Your task to perform on an android device: change notifications settings Image 0: 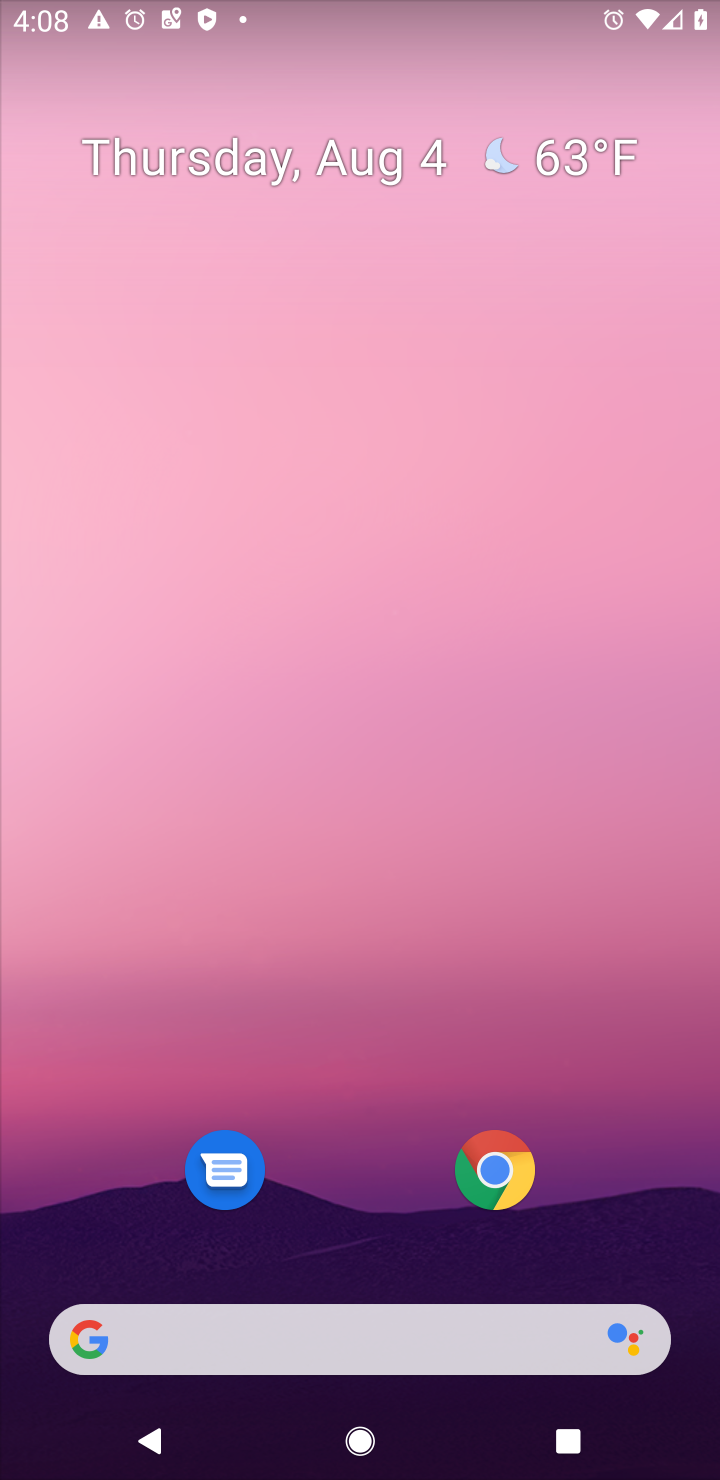
Step 0: drag from (640, 1255) to (622, 368)
Your task to perform on an android device: change notifications settings Image 1: 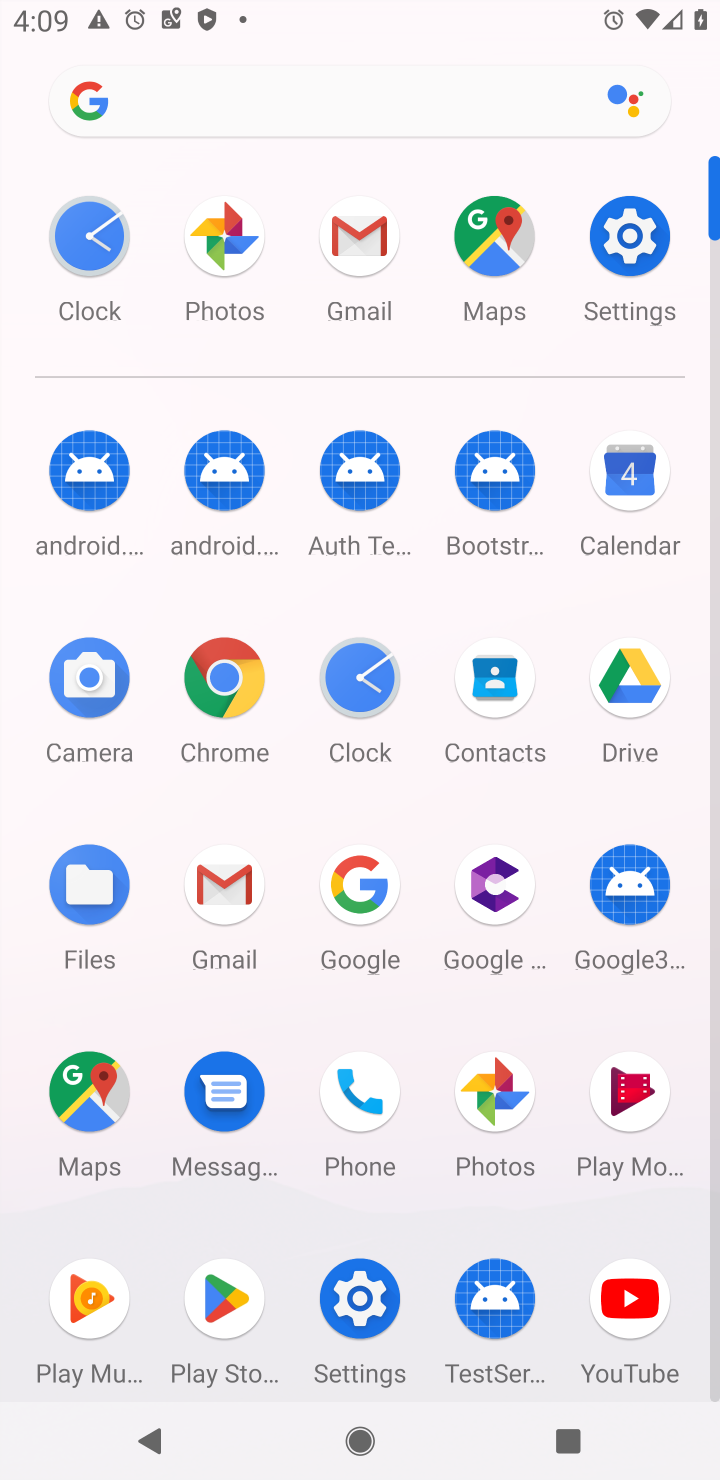
Step 1: click (355, 1294)
Your task to perform on an android device: change notifications settings Image 2: 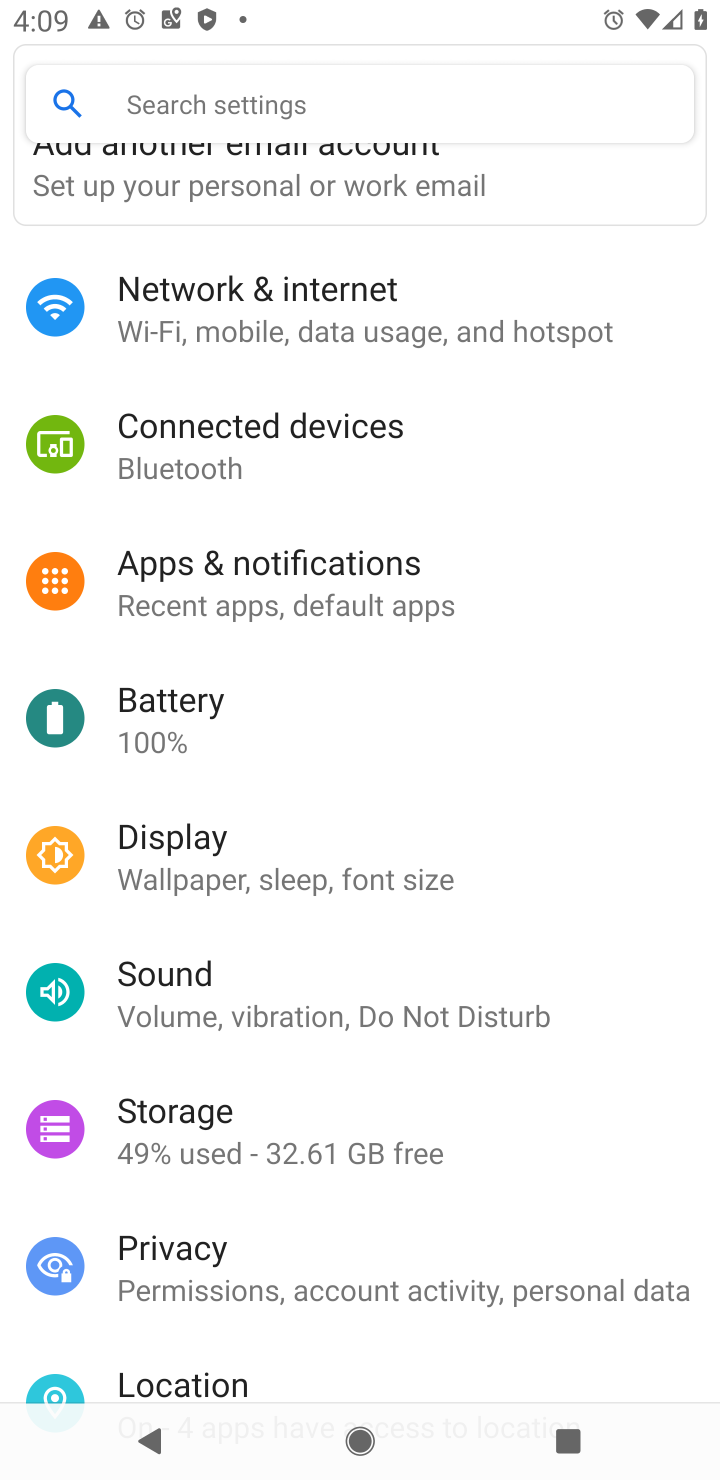
Step 2: click (234, 565)
Your task to perform on an android device: change notifications settings Image 3: 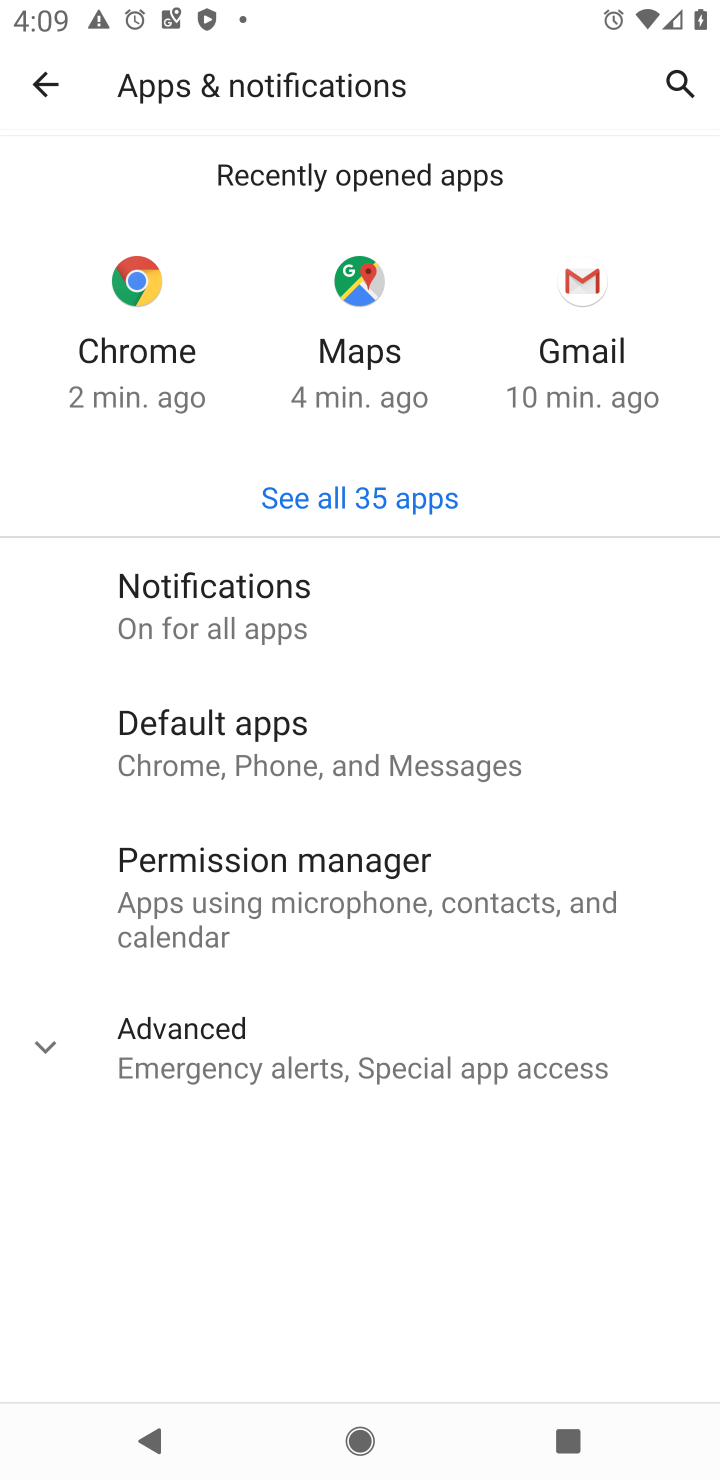
Step 3: click (177, 604)
Your task to perform on an android device: change notifications settings Image 4: 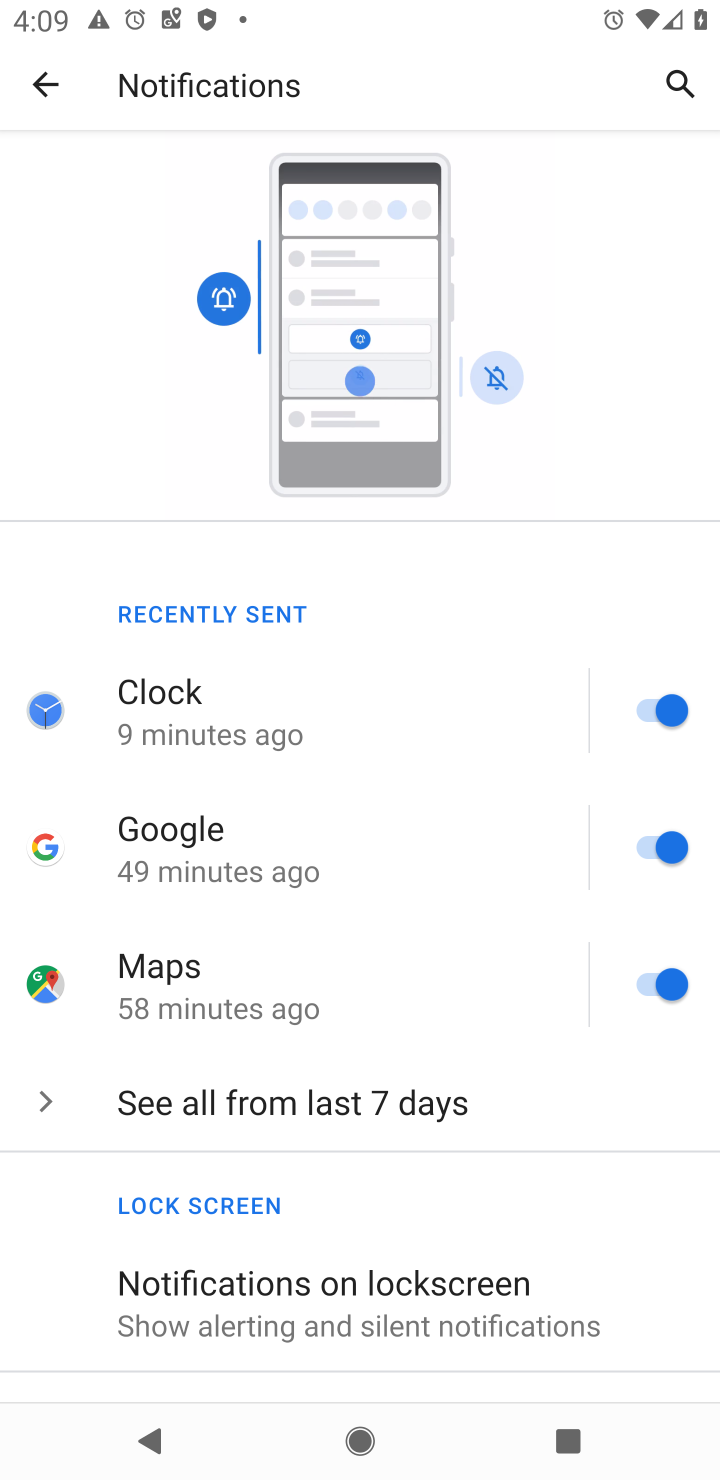
Step 4: drag from (437, 1235) to (487, 575)
Your task to perform on an android device: change notifications settings Image 5: 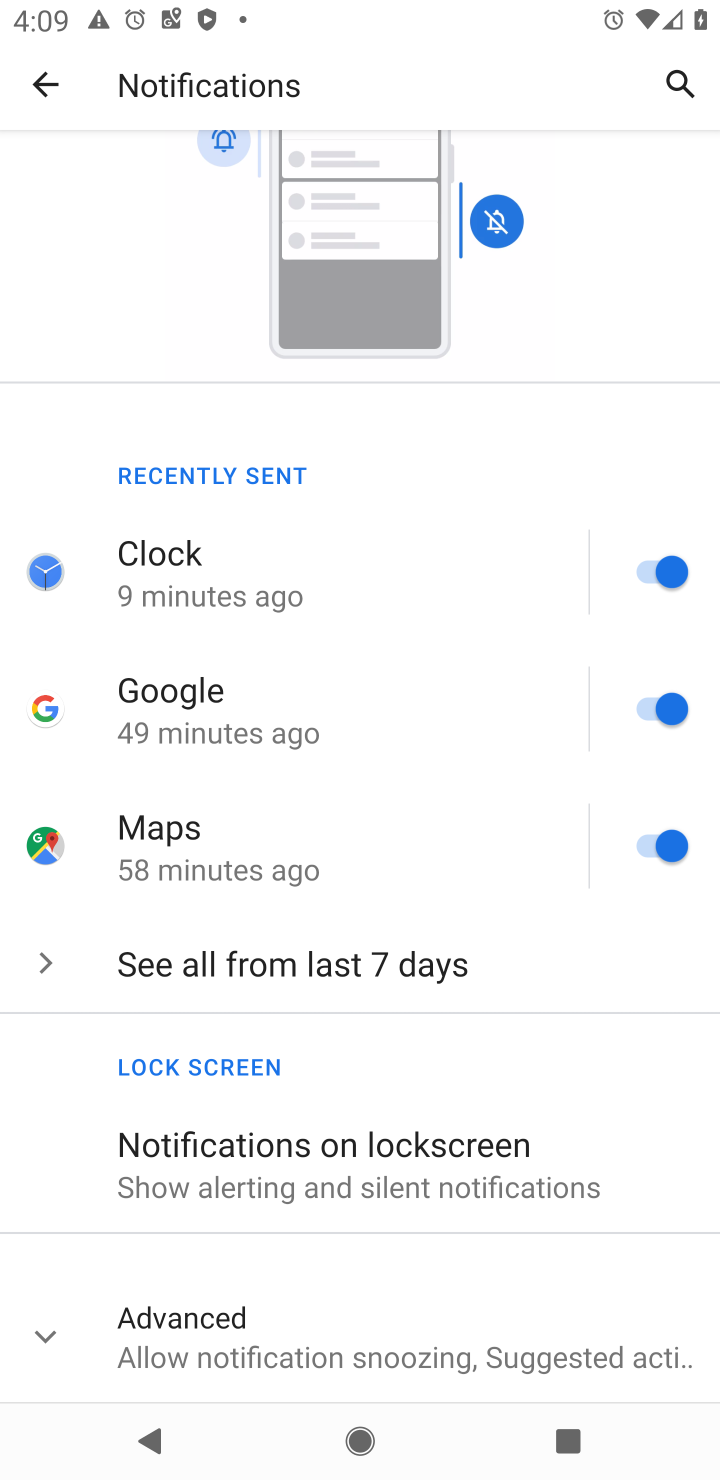
Step 5: click (52, 1342)
Your task to perform on an android device: change notifications settings Image 6: 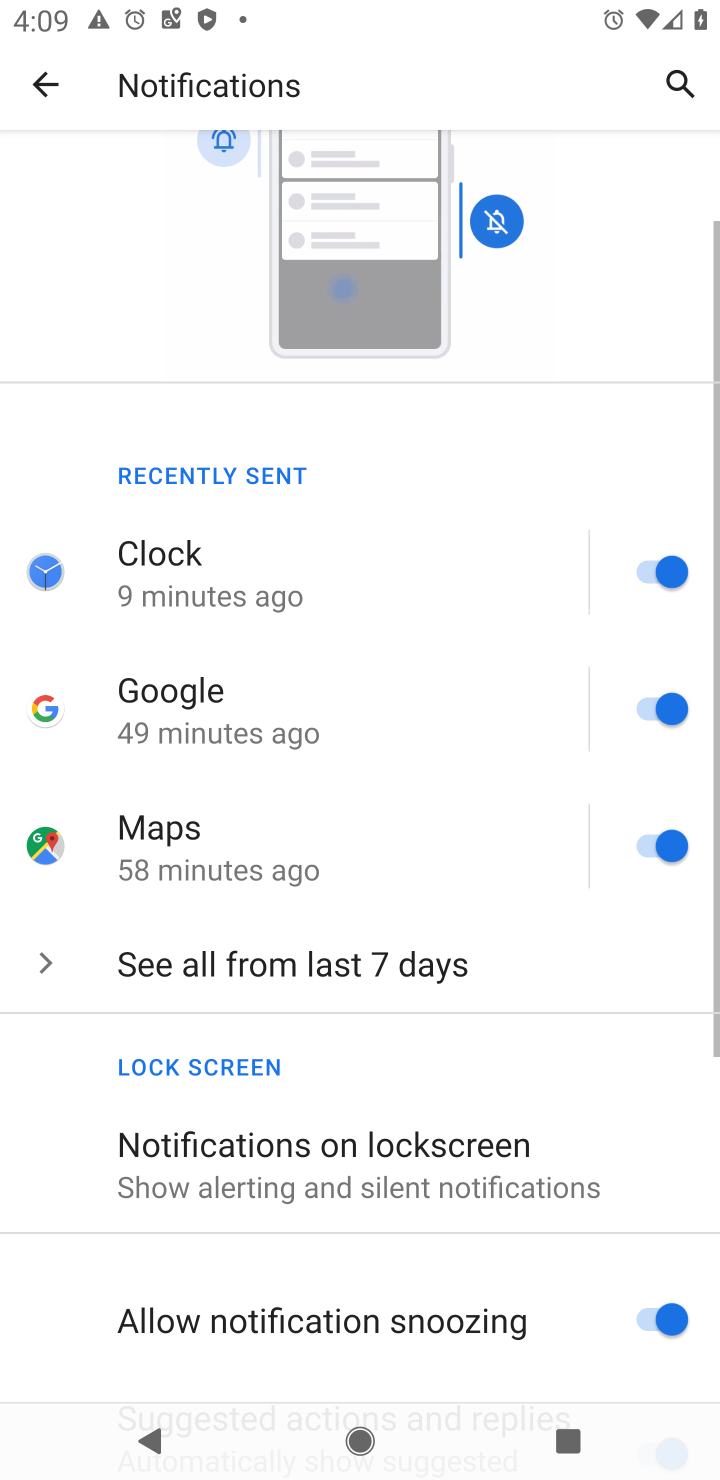
Step 6: drag from (553, 1274) to (567, 499)
Your task to perform on an android device: change notifications settings Image 7: 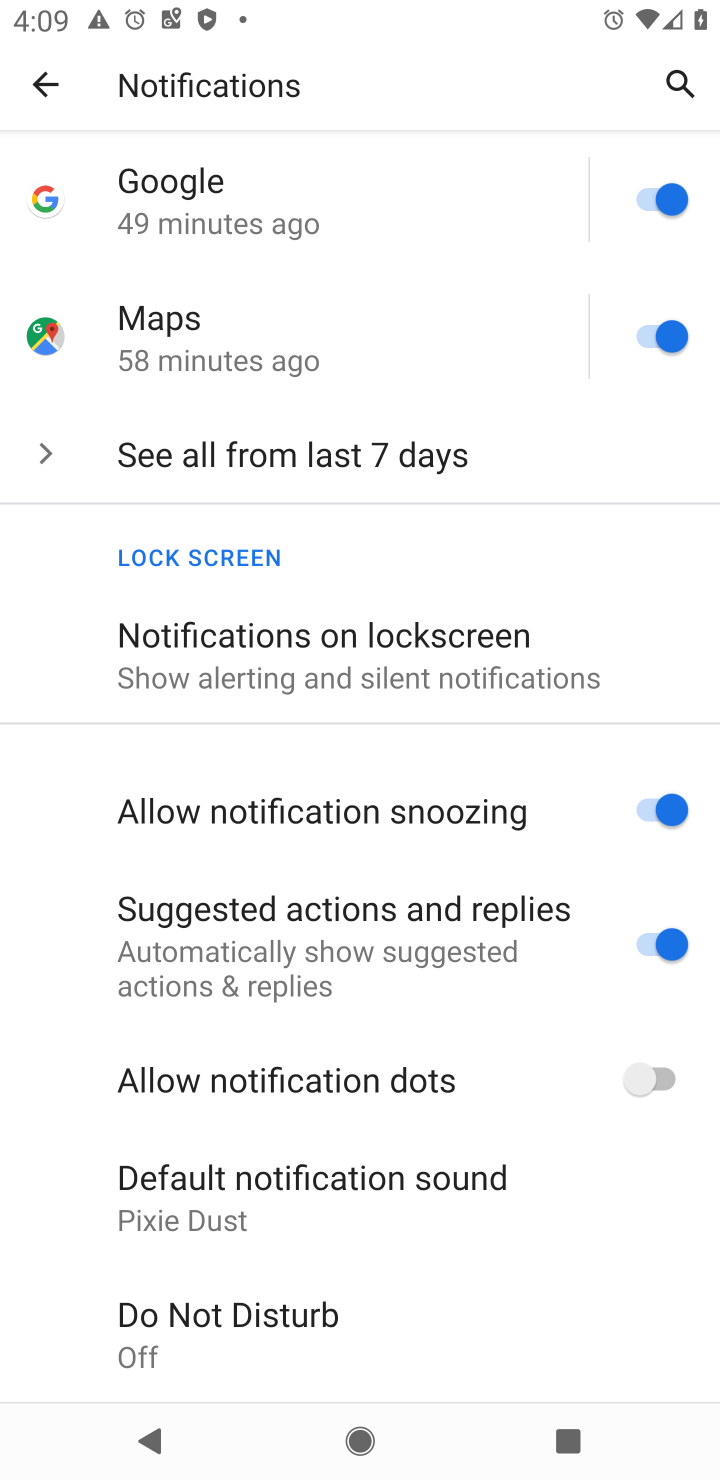
Step 7: click (670, 1085)
Your task to perform on an android device: change notifications settings Image 8: 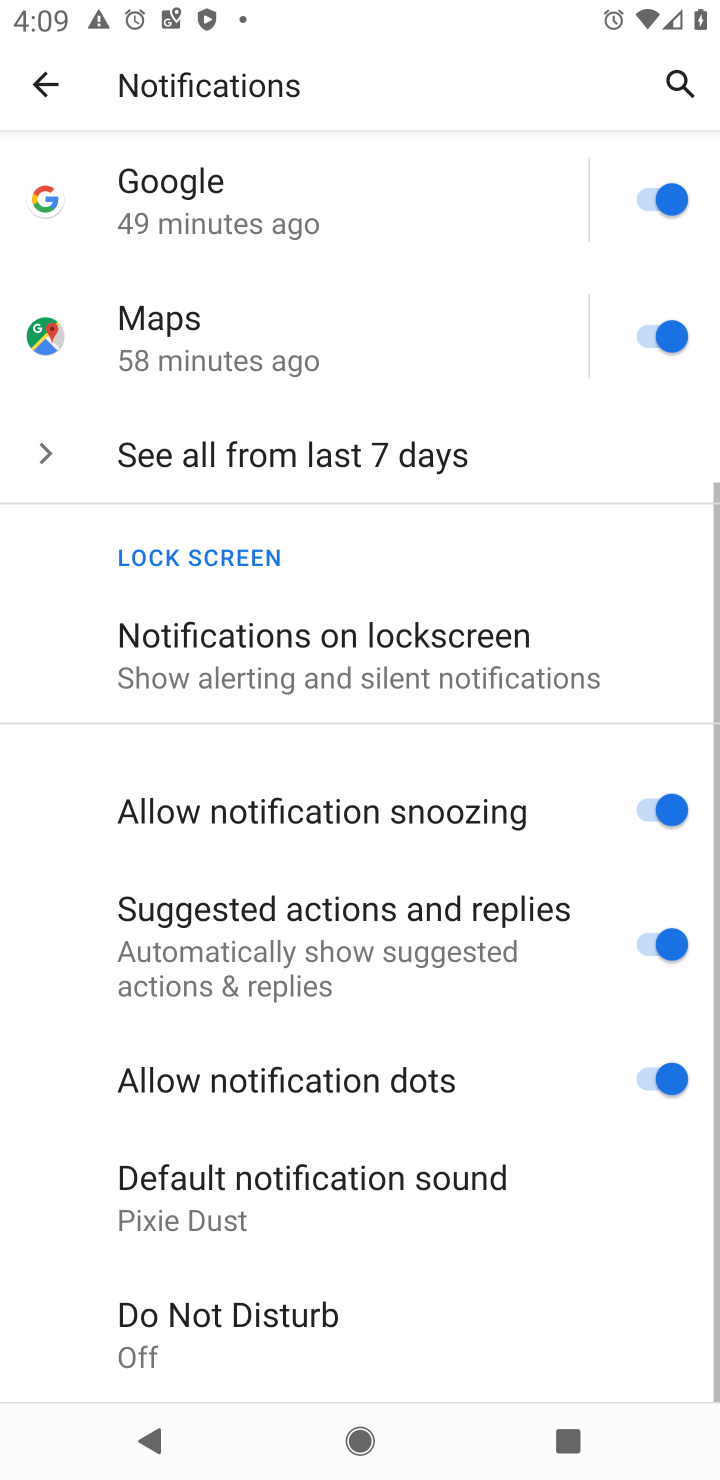
Step 8: click (643, 814)
Your task to perform on an android device: change notifications settings Image 9: 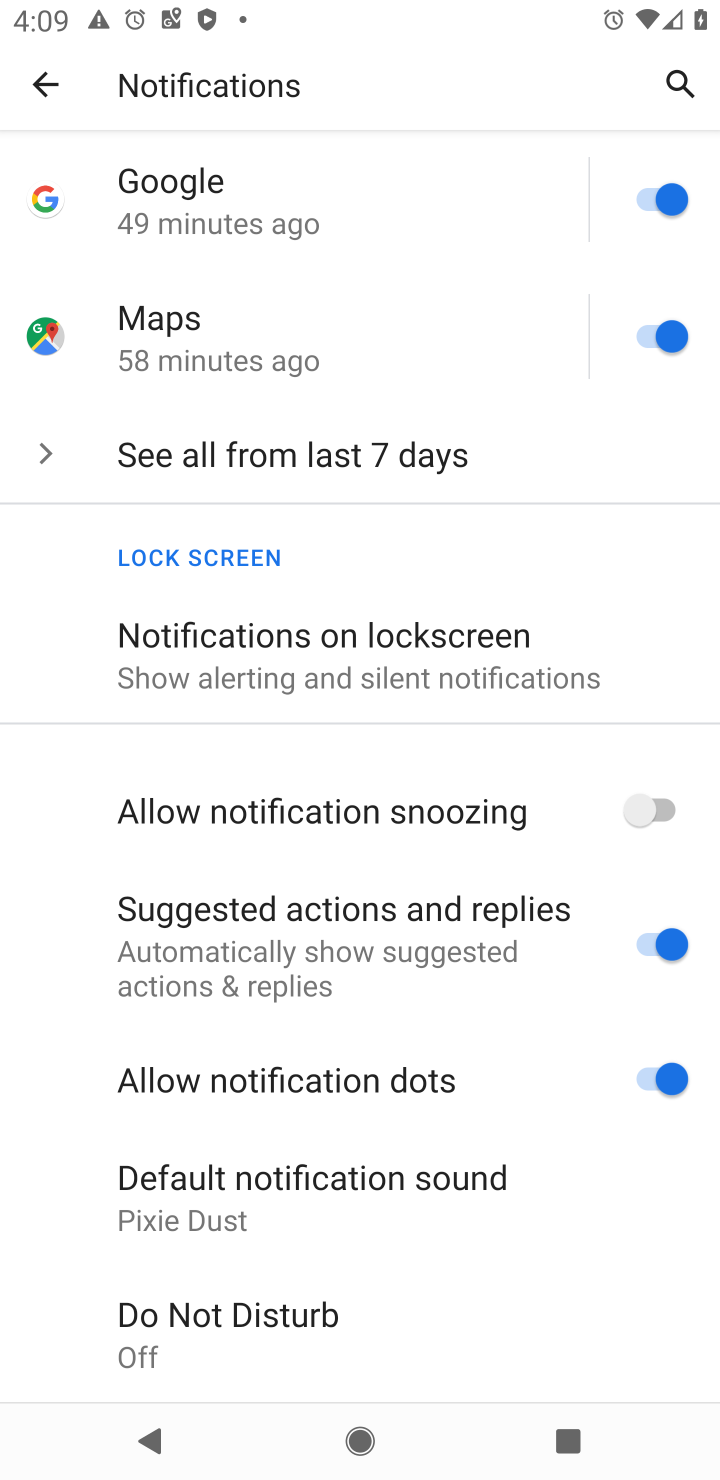
Step 9: task complete